Your task to perform on an android device: turn on bluetooth scan Image 0: 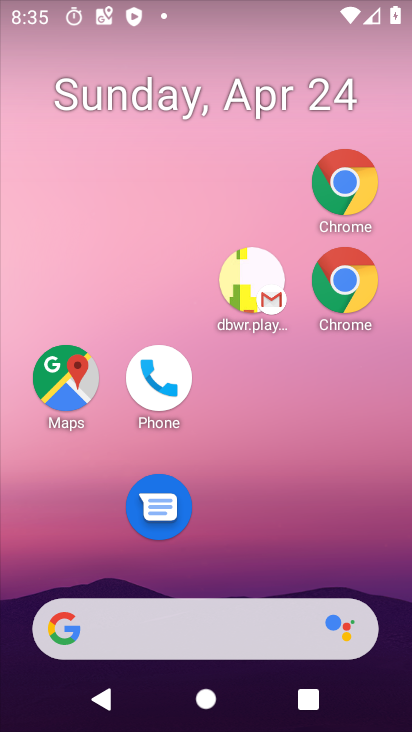
Step 0: drag from (242, 257) to (238, 102)
Your task to perform on an android device: turn on bluetooth scan Image 1: 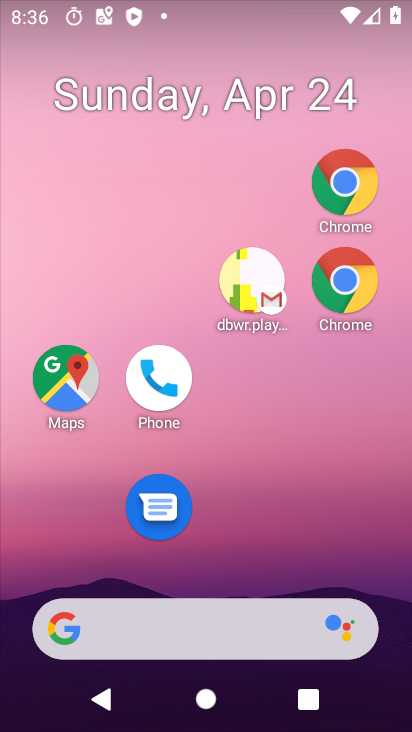
Step 1: click (287, 22)
Your task to perform on an android device: turn on bluetooth scan Image 2: 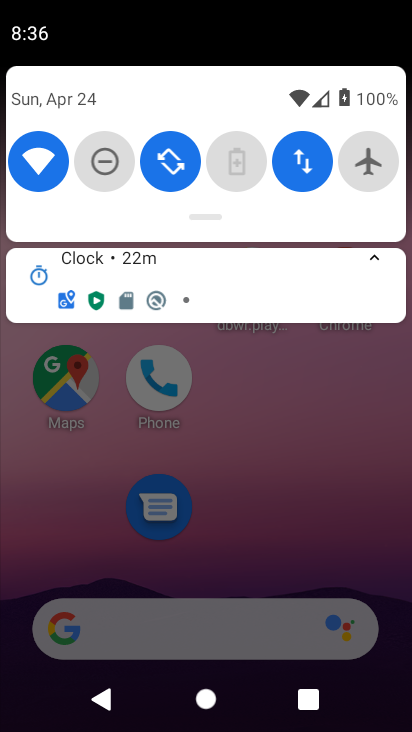
Step 2: click (266, 40)
Your task to perform on an android device: turn on bluetooth scan Image 3: 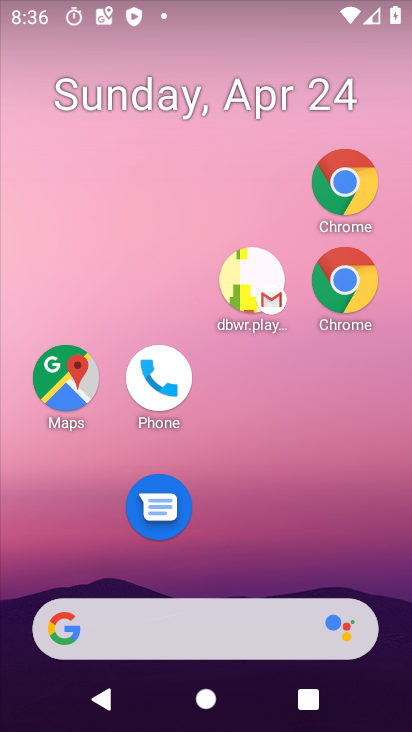
Step 3: click (71, 31)
Your task to perform on an android device: turn on bluetooth scan Image 4: 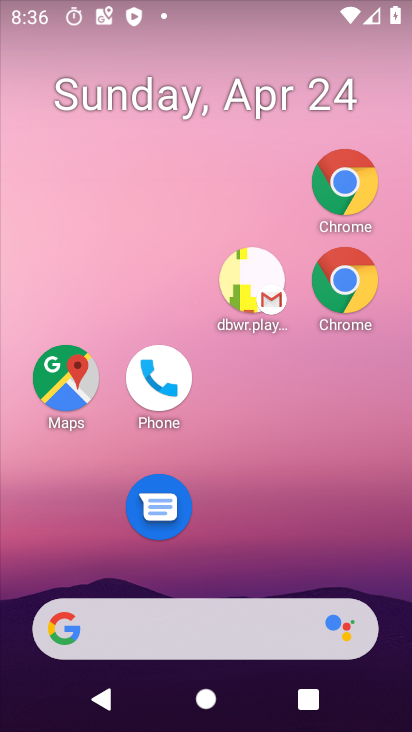
Step 4: click (202, 25)
Your task to perform on an android device: turn on bluetooth scan Image 5: 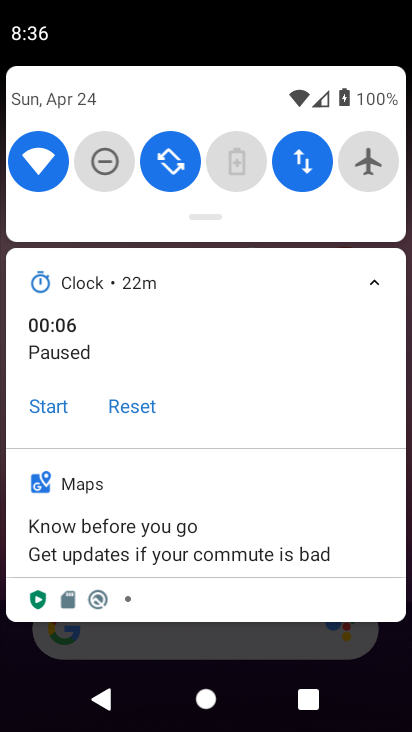
Step 5: drag from (281, 639) to (139, 0)
Your task to perform on an android device: turn on bluetooth scan Image 6: 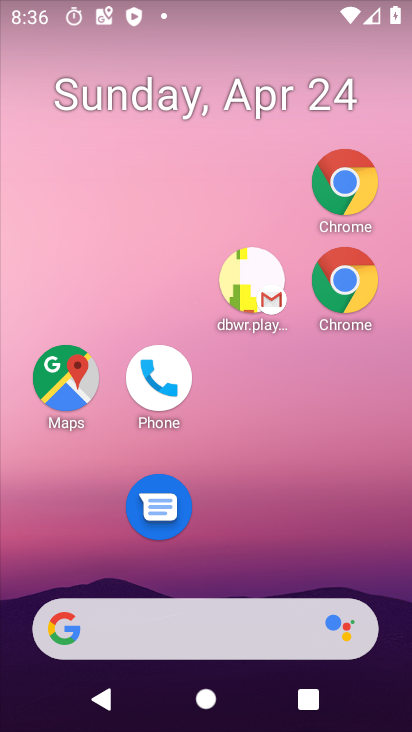
Step 6: drag from (264, 724) to (173, 85)
Your task to perform on an android device: turn on bluetooth scan Image 7: 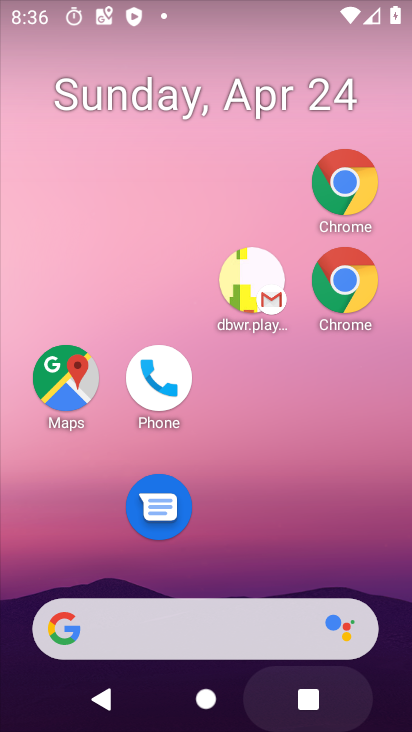
Step 7: click (191, 142)
Your task to perform on an android device: turn on bluetooth scan Image 8: 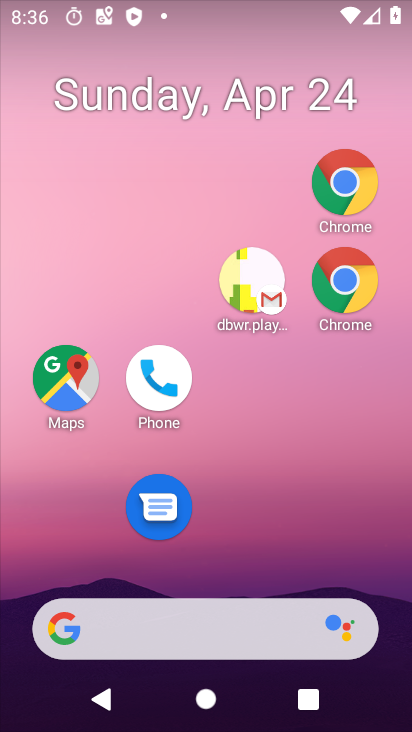
Step 8: drag from (284, 569) to (152, 294)
Your task to perform on an android device: turn on bluetooth scan Image 9: 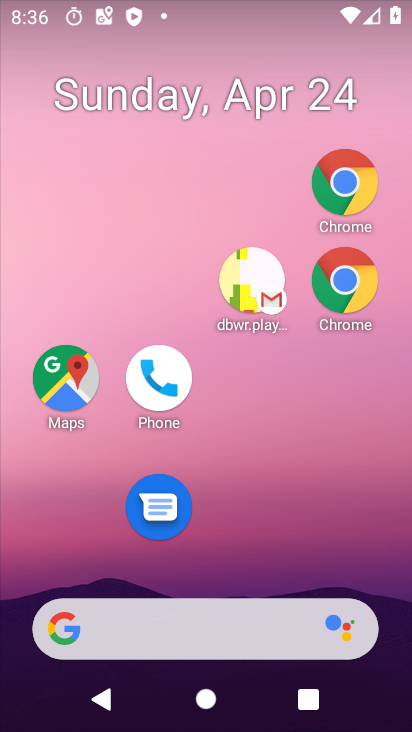
Step 9: drag from (292, 635) to (134, 81)
Your task to perform on an android device: turn on bluetooth scan Image 10: 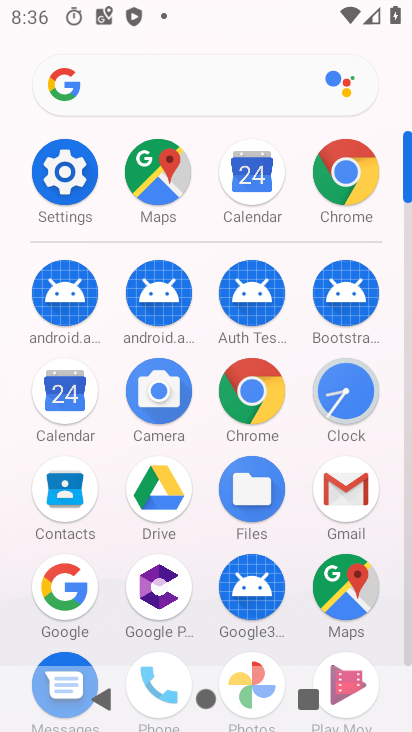
Step 10: drag from (284, 563) to (172, 187)
Your task to perform on an android device: turn on bluetooth scan Image 11: 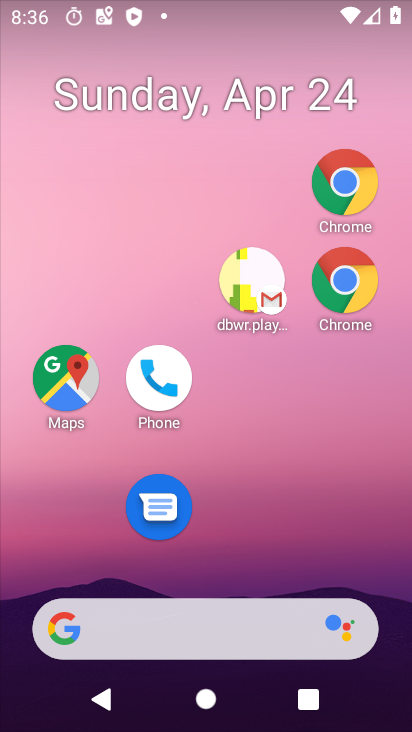
Step 11: drag from (332, 594) to (181, 146)
Your task to perform on an android device: turn on bluetooth scan Image 12: 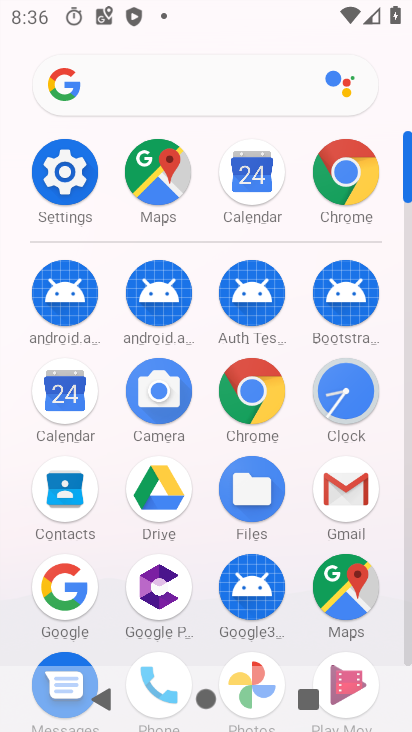
Step 12: click (73, 176)
Your task to perform on an android device: turn on bluetooth scan Image 13: 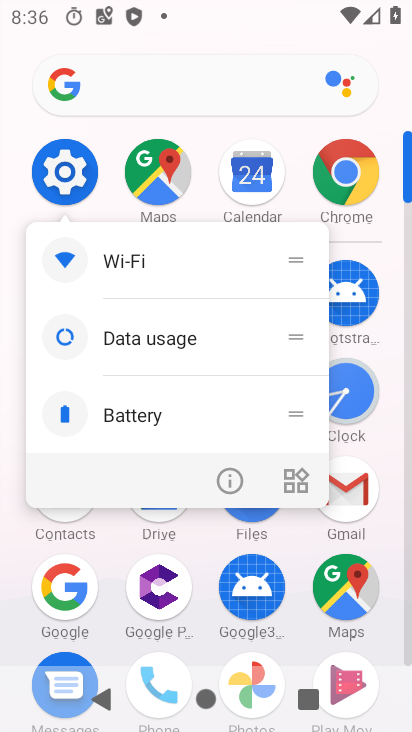
Step 13: click (74, 176)
Your task to perform on an android device: turn on bluetooth scan Image 14: 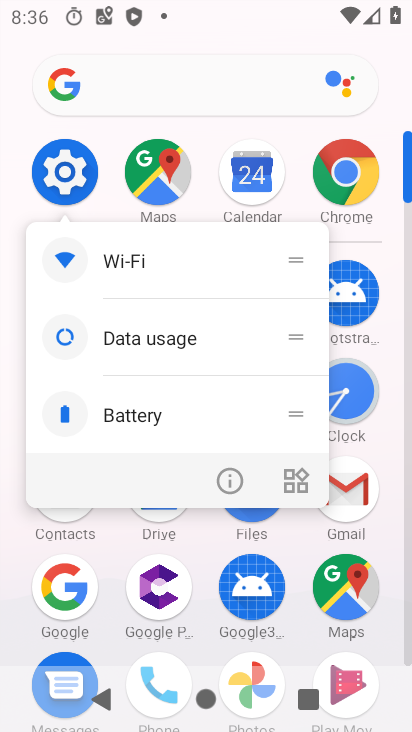
Step 14: click (80, 166)
Your task to perform on an android device: turn on bluetooth scan Image 15: 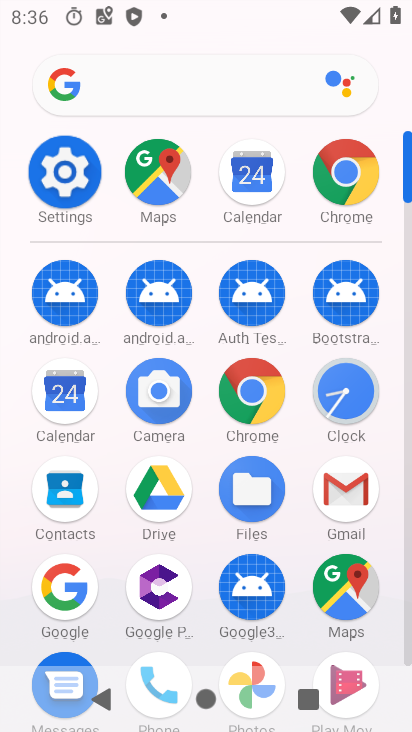
Step 15: click (80, 166)
Your task to perform on an android device: turn on bluetooth scan Image 16: 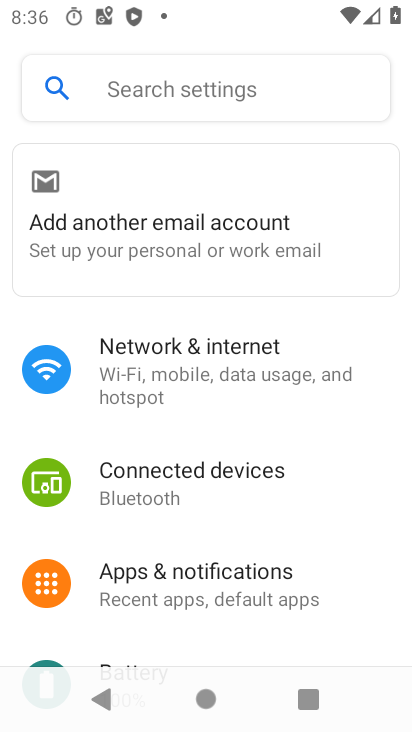
Step 16: drag from (201, 587) to (74, 51)
Your task to perform on an android device: turn on bluetooth scan Image 17: 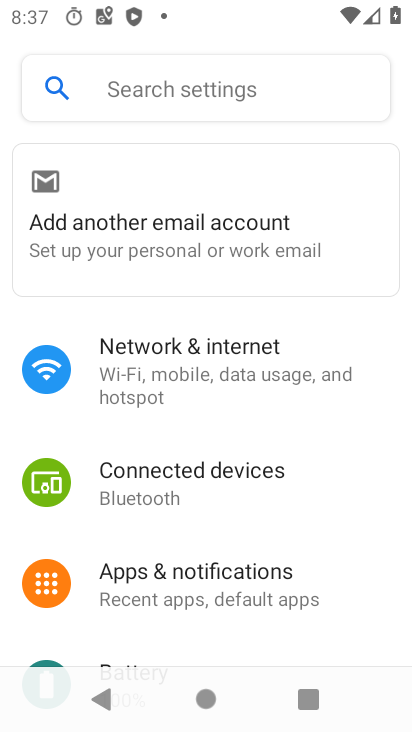
Step 17: drag from (196, 552) to (135, 28)
Your task to perform on an android device: turn on bluetooth scan Image 18: 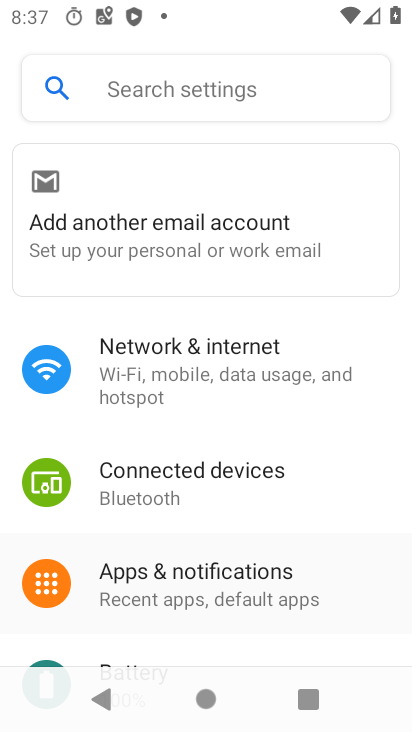
Step 18: drag from (208, 468) to (125, 30)
Your task to perform on an android device: turn on bluetooth scan Image 19: 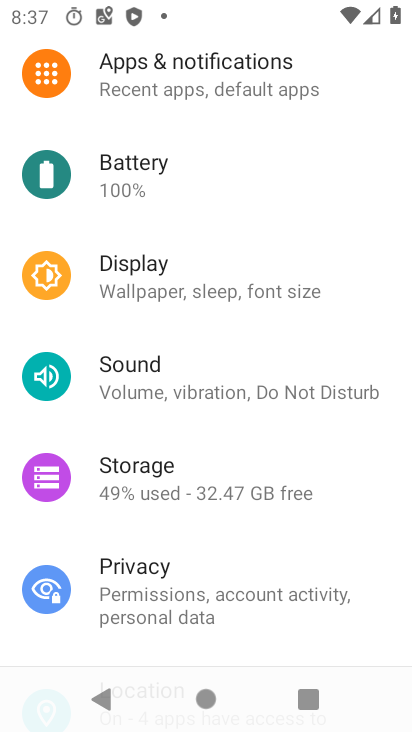
Step 19: drag from (217, 528) to (156, 7)
Your task to perform on an android device: turn on bluetooth scan Image 20: 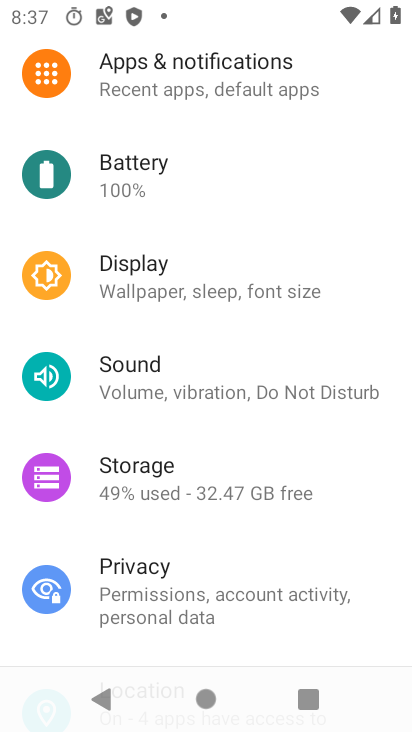
Step 20: drag from (180, 561) to (111, 58)
Your task to perform on an android device: turn on bluetooth scan Image 21: 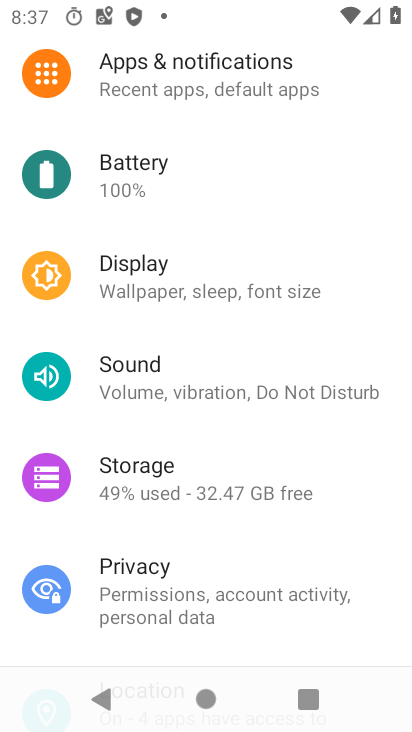
Step 21: drag from (212, 556) to (159, 54)
Your task to perform on an android device: turn on bluetooth scan Image 22: 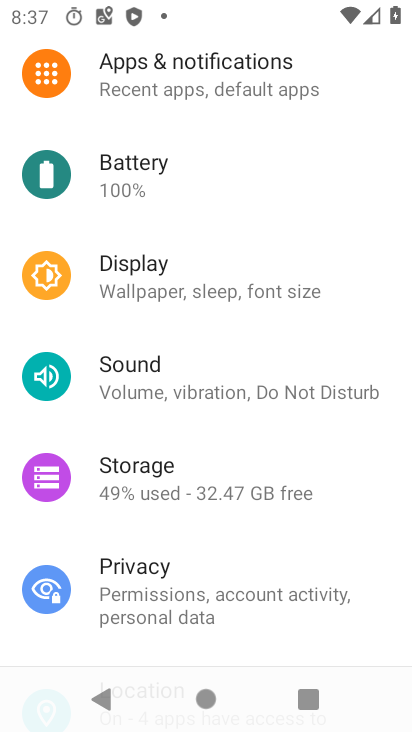
Step 22: drag from (141, 544) to (124, 12)
Your task to perform on an android device: turn on bluetooth scan Image 23: 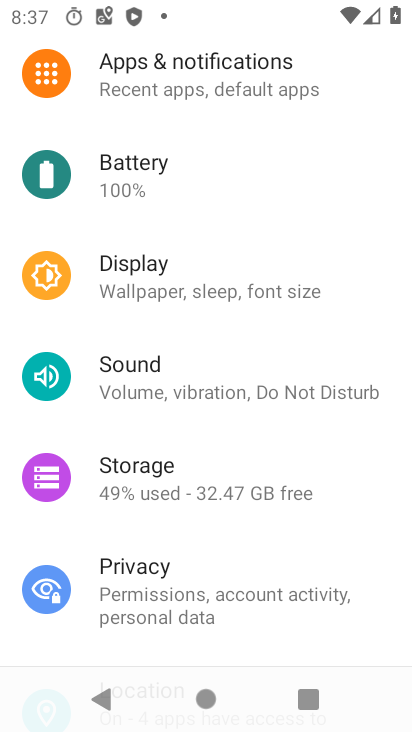
Step 23: drag from (235, 599) to (166, 21)
Your task to perform on an android device: turn on bluetooth scan Image 24: 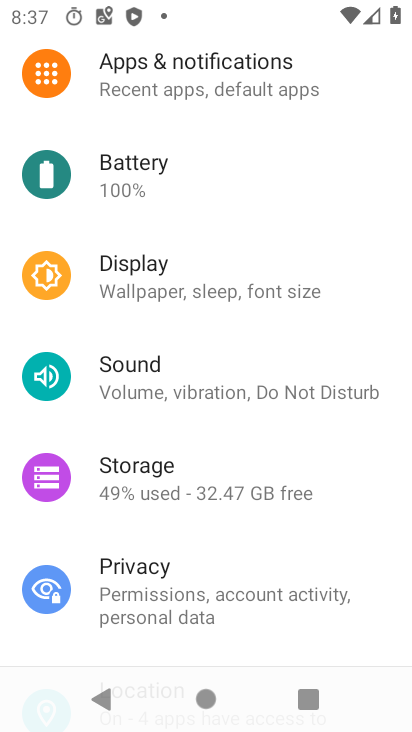
Step 24: drag from (380, 535) to (290, 65)
Your task to perform on an android device: turn on bluetooth scan Image 25: 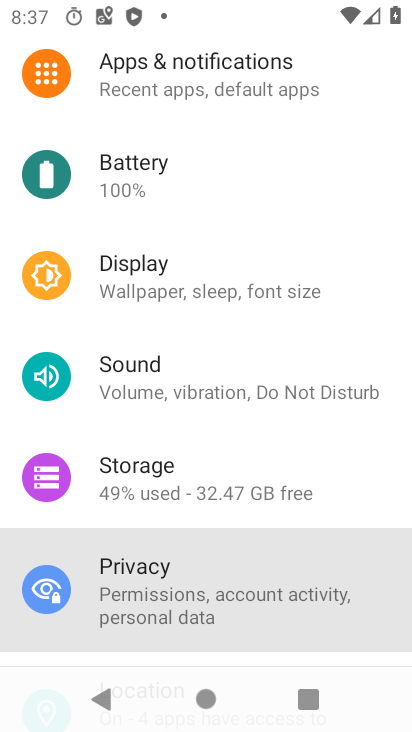
Step 25: drag from (161, 626) to (123, 105)
Your task to perform on an android device: turn on bluetooth scan Image 26: 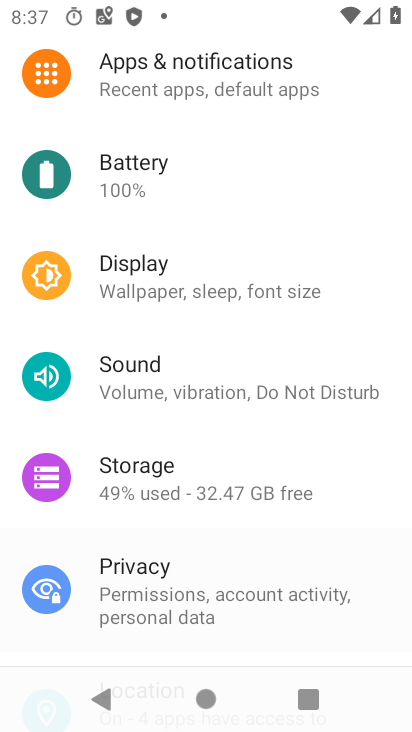
Step 26: drag from (230, 514) to (165, 84)
Your task to perform on an android device: turn on bluetooth scan Image 27: 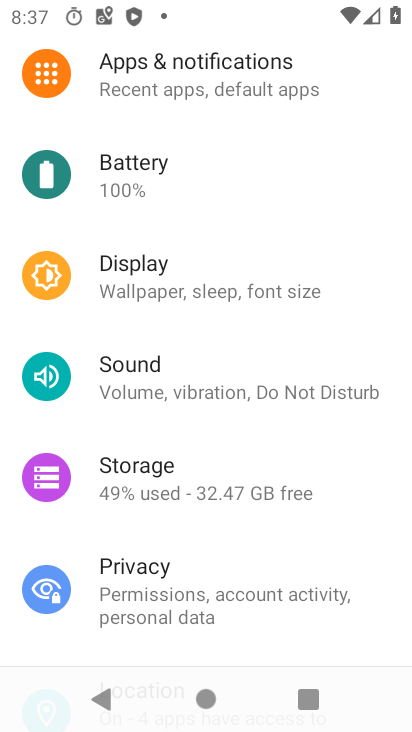
Step 27: drag from (355, 586) to (297, 152)
Your task to perform on an android device: turn on bluetooth scan Image 28: 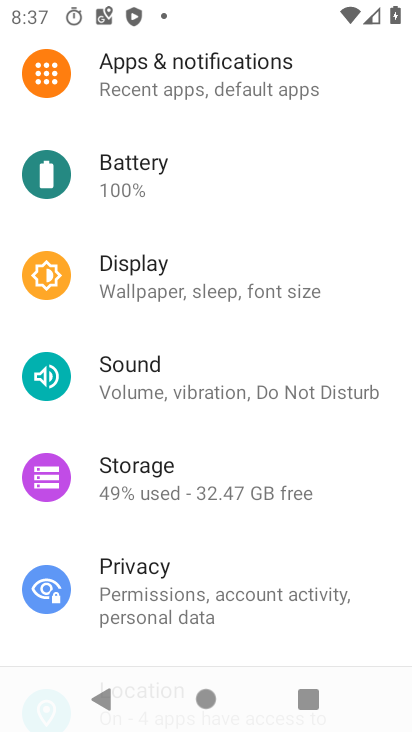
Step 28: drag from (300, 616) to (235, 20)
Your task to perform on an android device: turn on bluetooth scan Image 29: 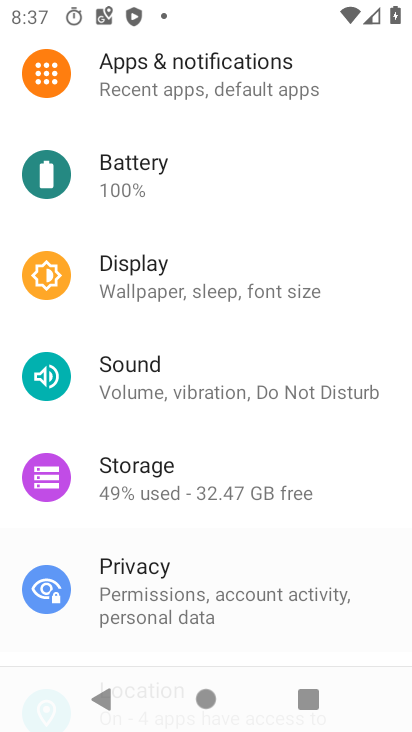
Step 29: drag from (191, 562) to (100, 12)
Your task to perform on an android device: turn on bluetooth scan Image 30: 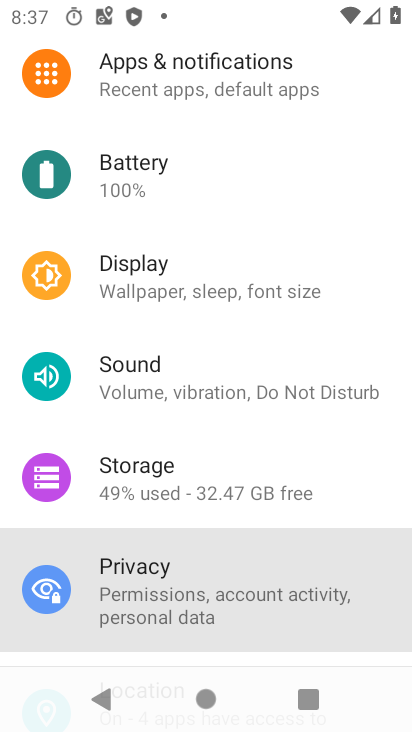
Step 30: drag from (228, 510) to (158, 27)
Your task to perform on an android device: turn on bluetooth scan Image 31: 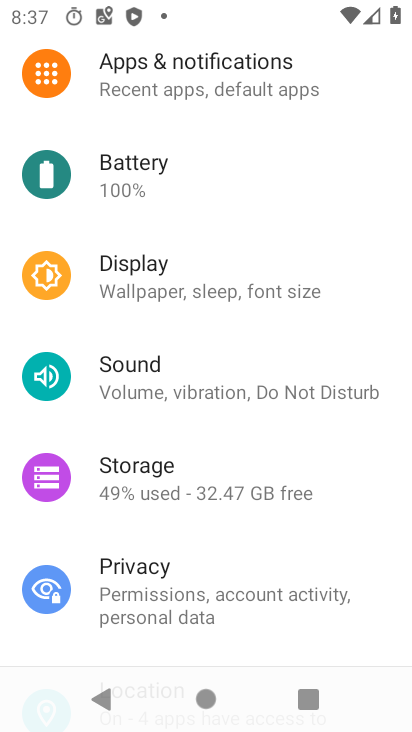
Step 31: drag from (304, 565) to (211, 28)
Your task to perform on an android device: turn on bluetooth scan Image 32: 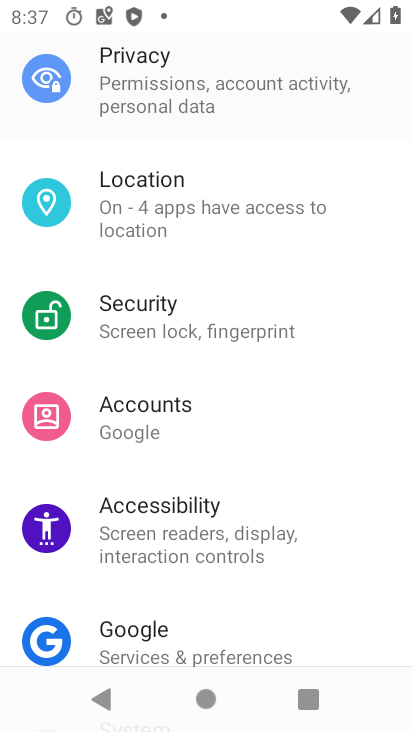
Step 32: drag from (228, 549) to (159, 49)
Your task to perform on an android device: turn on bluetooth scan Image 33: 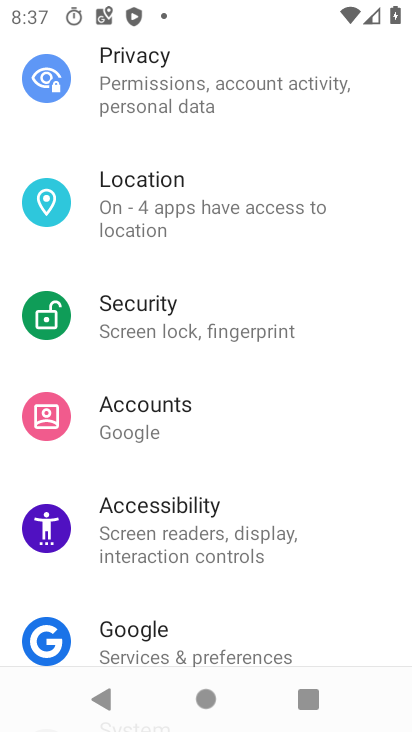
Step 33: click (162, 195)
Your task to perform on an android device: turn on bluetooth scan Image 34: 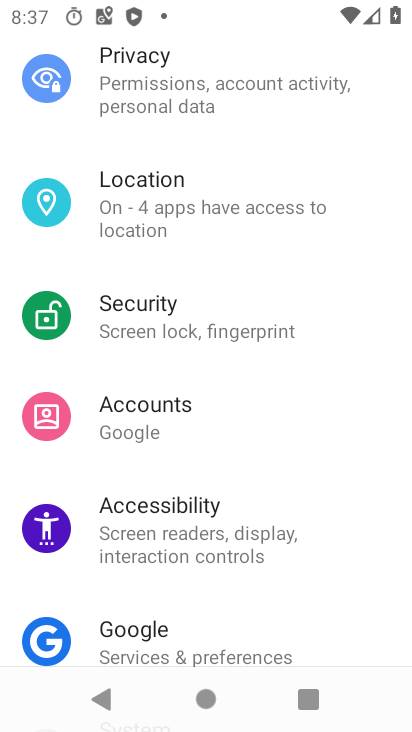
Step 34: click (165, 207)
Your task to perform on an android device: turn on bluetooth scan Image 35: 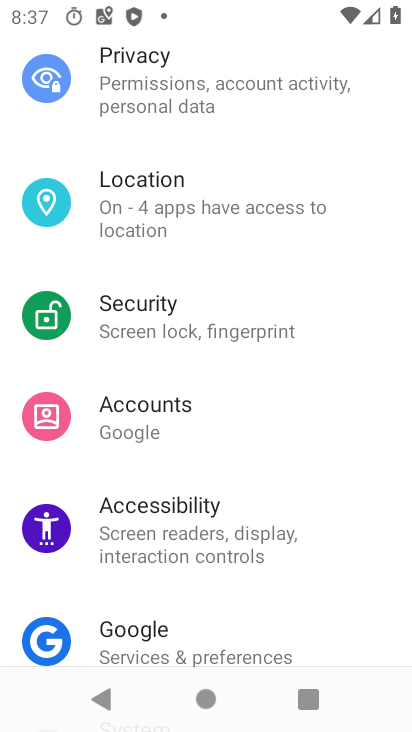
Step 35: click (165, 207)
Your task to perform on an android device: turn on bluetooth scan Image 36: 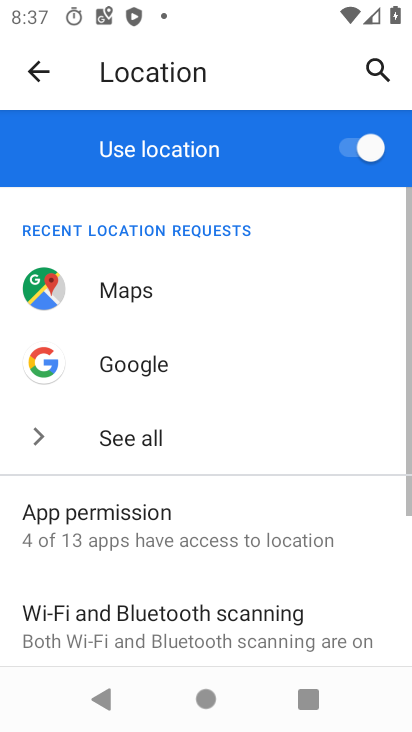
Step 36: click (173, 615)
Your task to perform on an android device: turn on bluetooth scan Image 37: 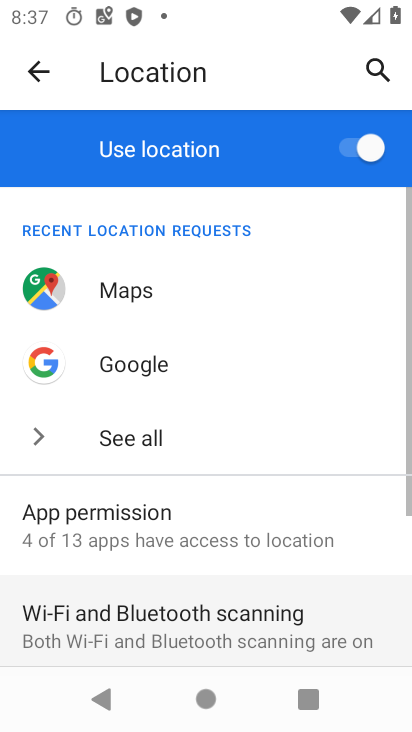
Step 37: click (174, 613)
Your task to perform on an android device: turn on bluetooth scan Image 38: 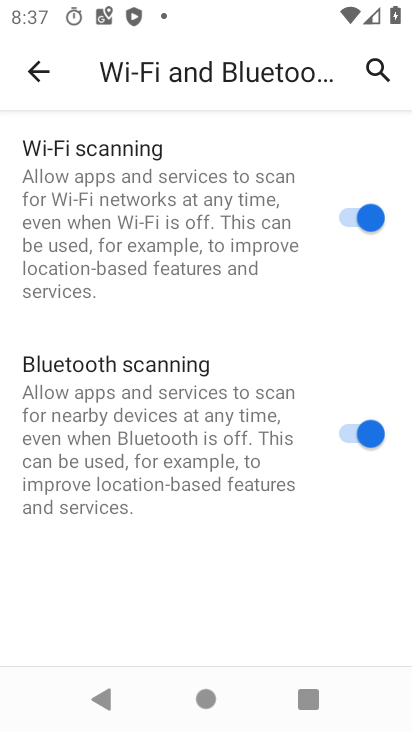
Step 38: click (350, 434)
Your task to perform on an android device: turn on bluetooth scan Image 39: 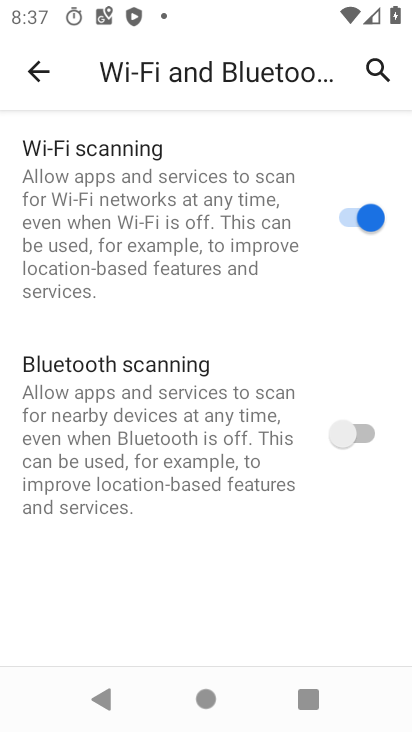
Step 39: click (353, 434)
Your task to perform on an android device: turn on bluetooth scan Image 40: 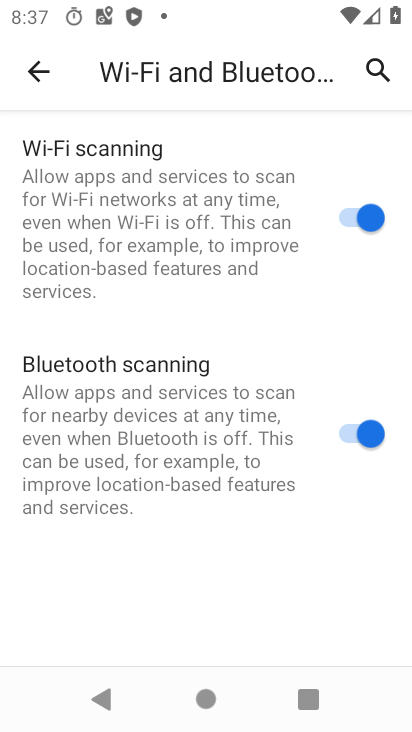
Step 40: task complete